Your task to perform on an android device: turn off wifi Image 0: 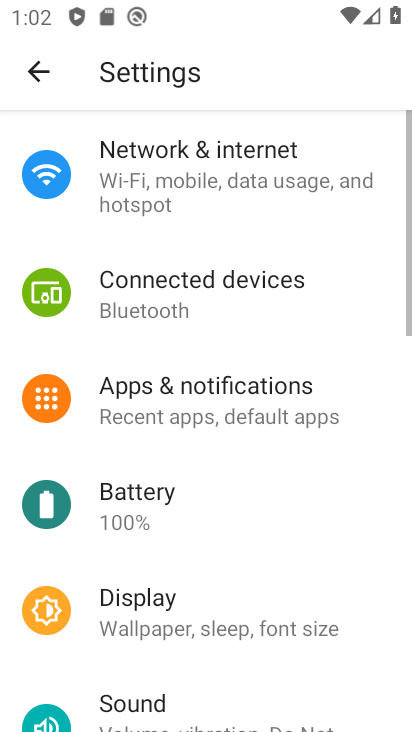
Step 0: drag from (358, 557) to (361, 368)
Your task to perform on an android device: turn off wifi Image 1: 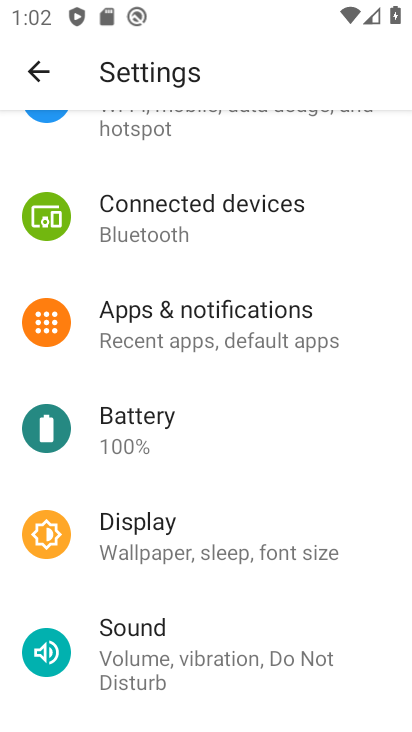
Step 1: drag from (358, 590) to (372, 417)
Your task to perform on an android device: turn off wifi Image 2: 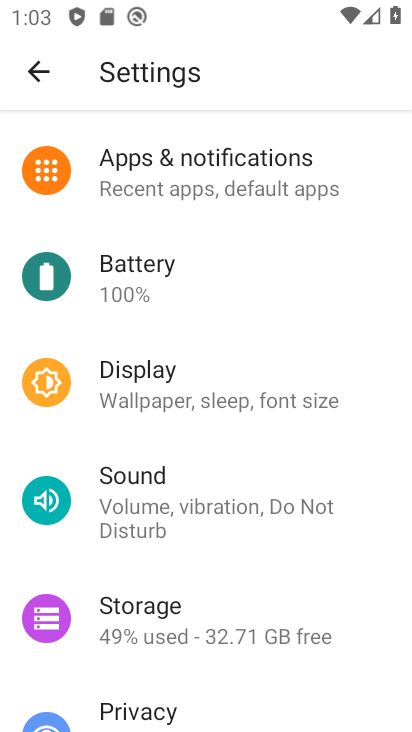
Step 2: drag from (364, 650) to (371, 441)
Your task to perform on an android device: turn off wifi Image 3: 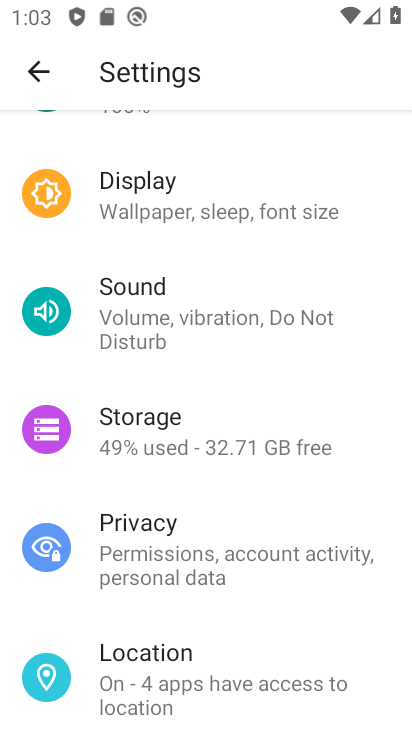
Step 3: drag from (359, 609) to (363, 372)
Your task to perform on an android device: turn off wifi Image 4: 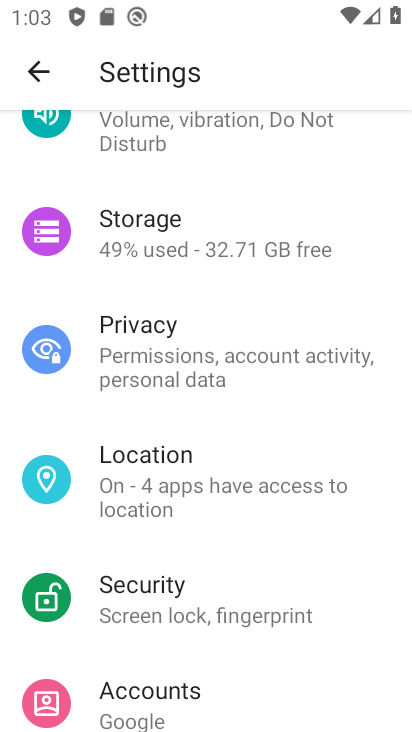
Step 4: drag from (377, 275) to (367, 427)
Your task to perform on an android device: turn off wifi Image 5: 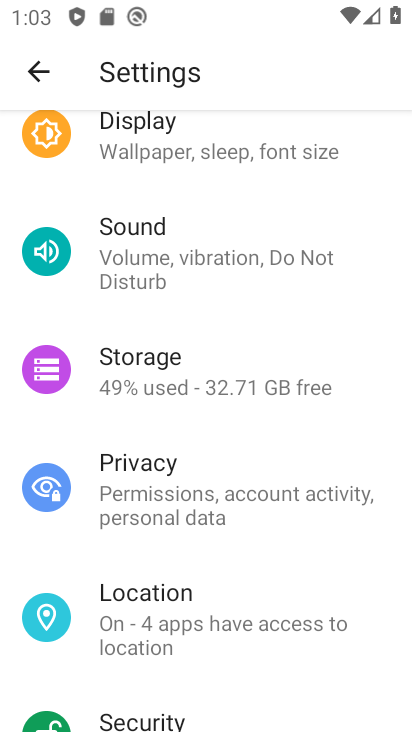
Step 5: drag from (372, 293) to (354, 423)
Your task to perform on an android device: turn off wifi Image 6: 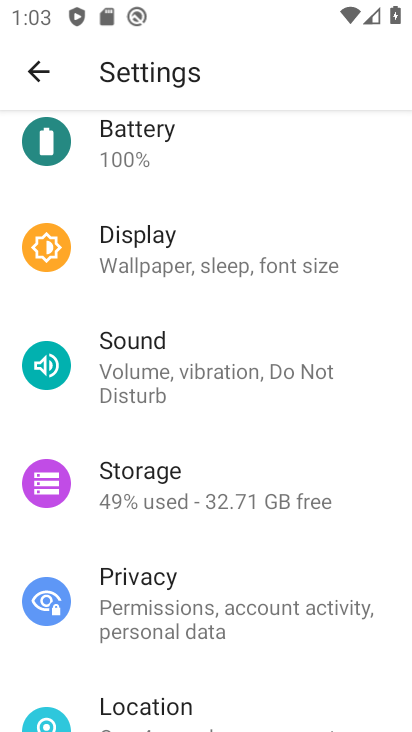
Step 6: drag from (364, 242) to (358, 408)
Your task to perform on an android device: turn off wifi Image 7: 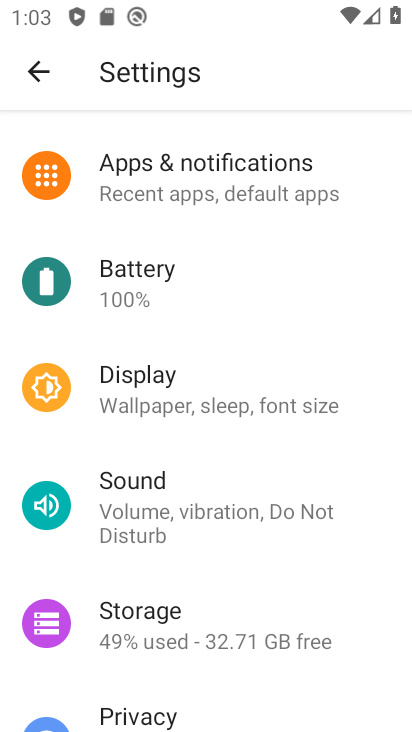
Step 7: drag from (355, 258) to (328, 434)
Your task to perform on an android device: turn off wifi Image 8: 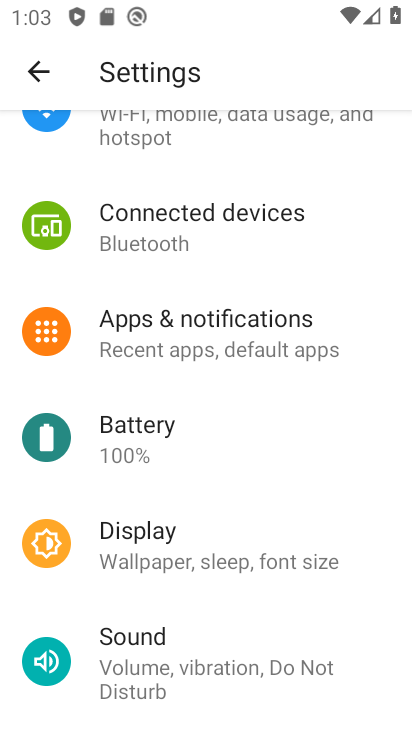
Step 8: drag from (326, 210) to (319, 386)
Your task to perform on an android device: turn off wifi Image 9: 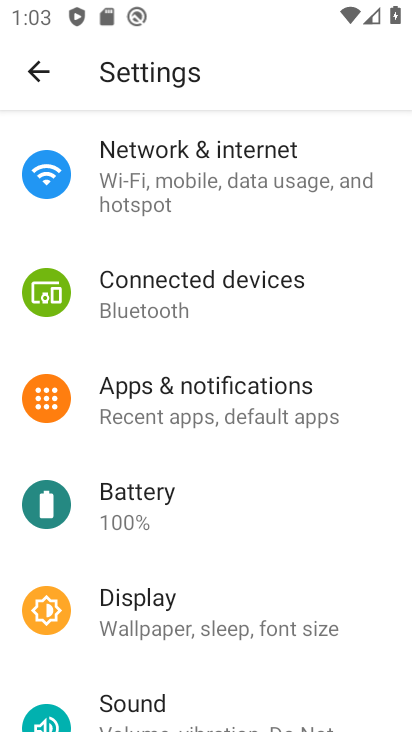
Step 9: click (292, 161)
Your task to perform on an android device: turn off wifi Image 10: 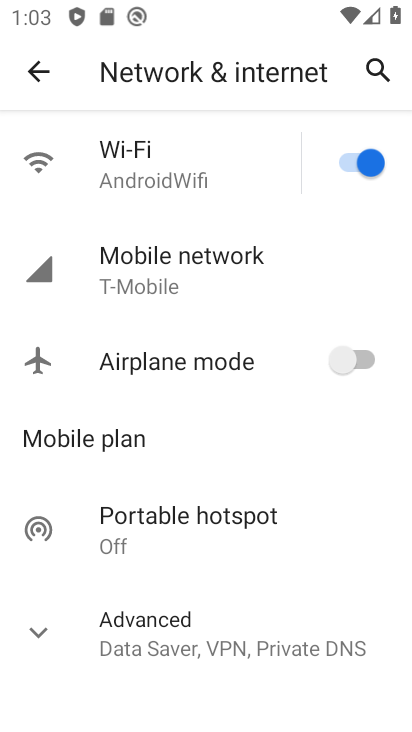
Step 10: click (378, 171)
Your task to perform on an android device: turn off wifi Image 11: 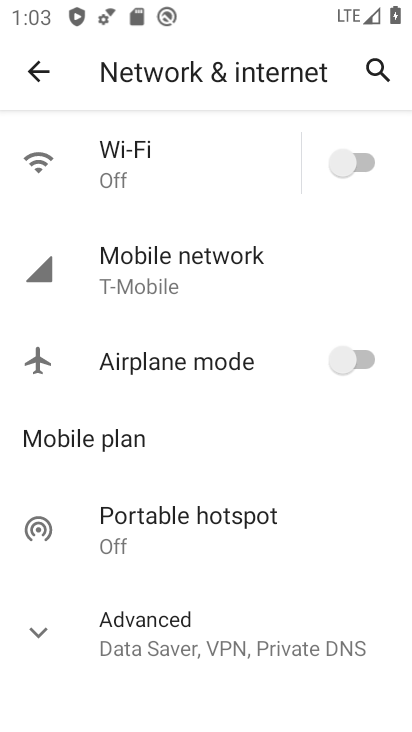
Step 11: task complete